Your task to perform on an android device: Open the stopwatch Image 0: 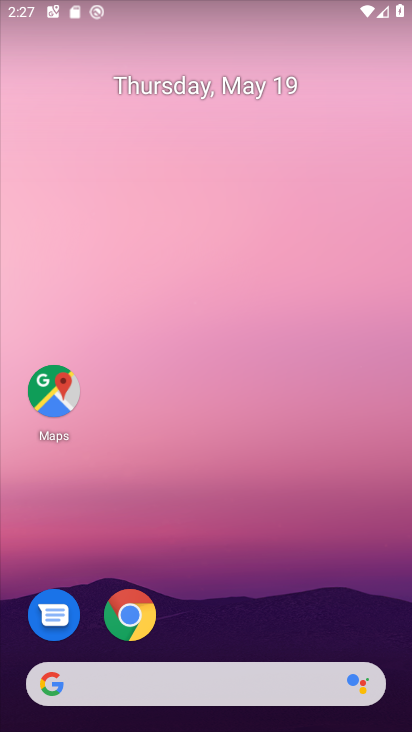
Step 0: drag from (291, 550) to (260, 0)
Your task to perform on an android device: Open the stopwatch Image 1: 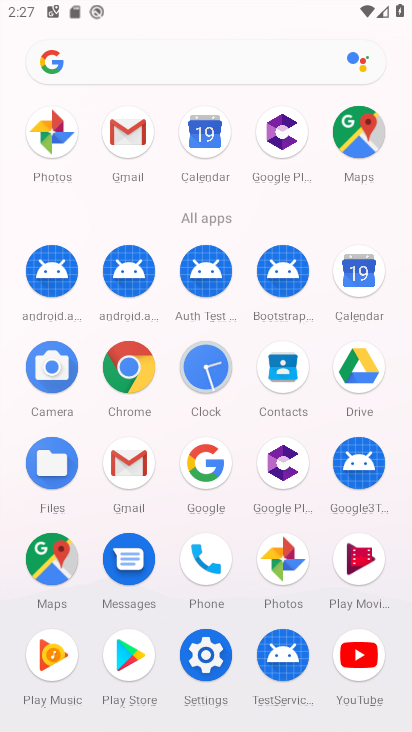
Step 1: drag from (7, 571) to (12, 243)
Your task to perform on an android device: Open the stopwatch Image 2: 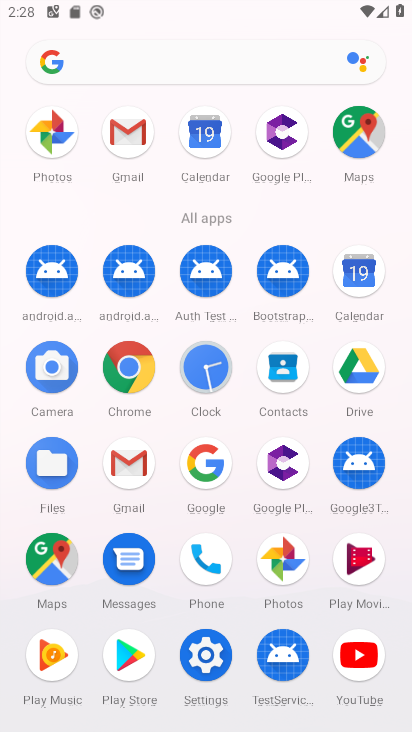
Step 2: click (200, 365)
Your task to perform on an android device: Open the stopwatch Image 3: 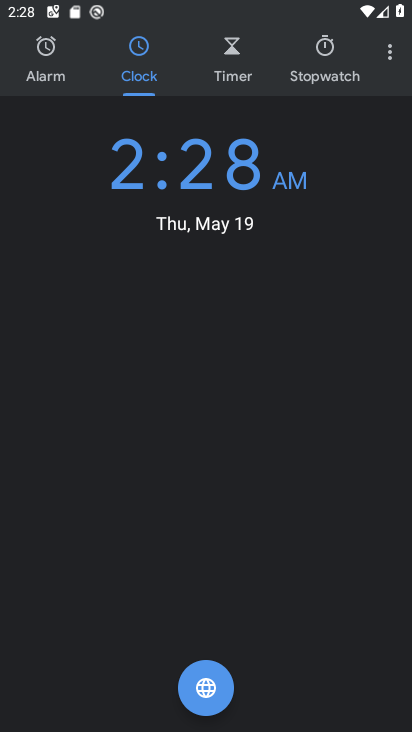
Step 3: click (320, 59)
Your task to perform on an android device: Open the stopwatch Image 4: 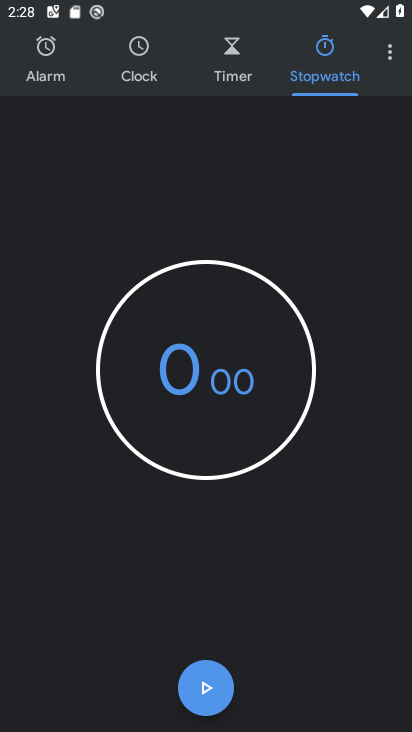
Step 4: task complete